Your task to perform on an android device: visit the assistant section in the google photos Image 0: 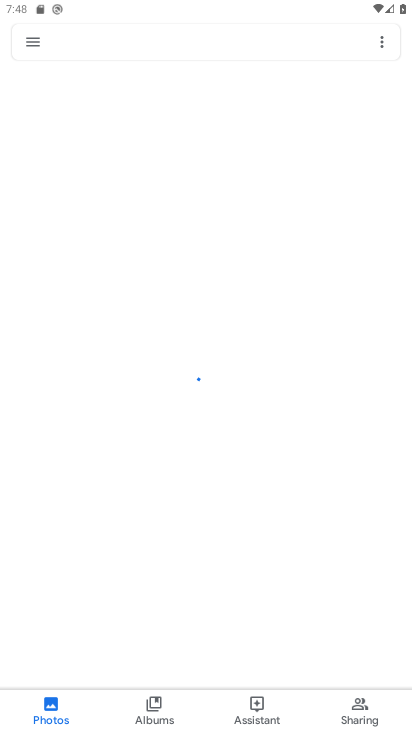
Step 0: press home button
Your task to perform on an android device: visit the assistant section in the google photos Image 1: 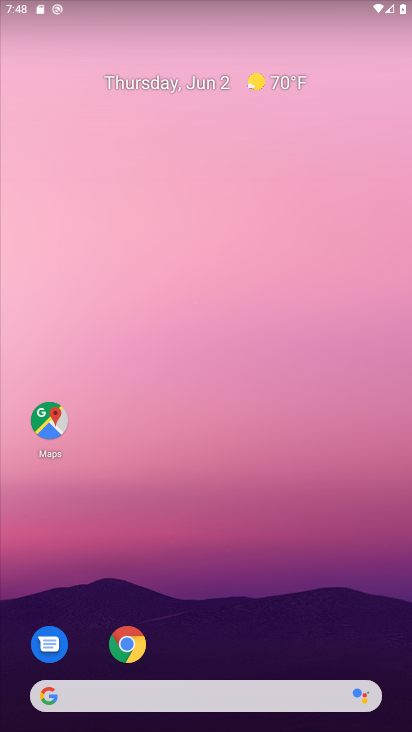
Step 1: drag from (177, 677) to (409, 163)
Your task to perform on an android device: visit the assistant section in the google photos Image 2: 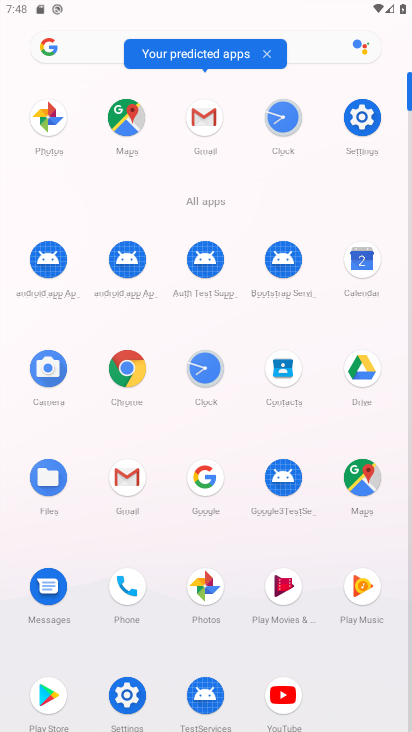
Step 2: click (48, 112)
Your task to perform on an android device: visit the assistant section in the google photos Image 3: 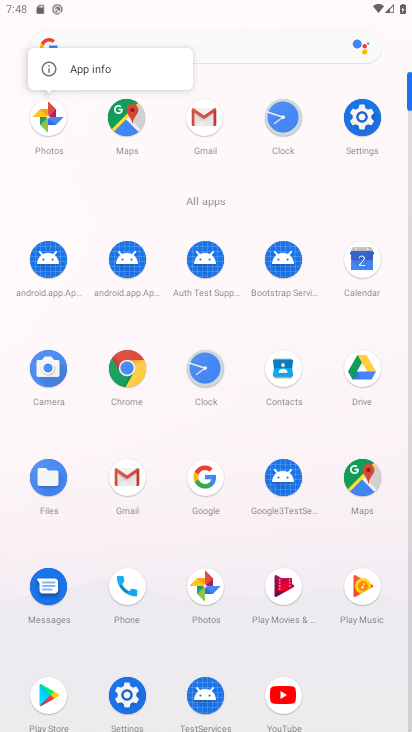
Step 3: click (48, 112)
Your task to perform on an android device: visit the assistant section in the google photos Image 4: 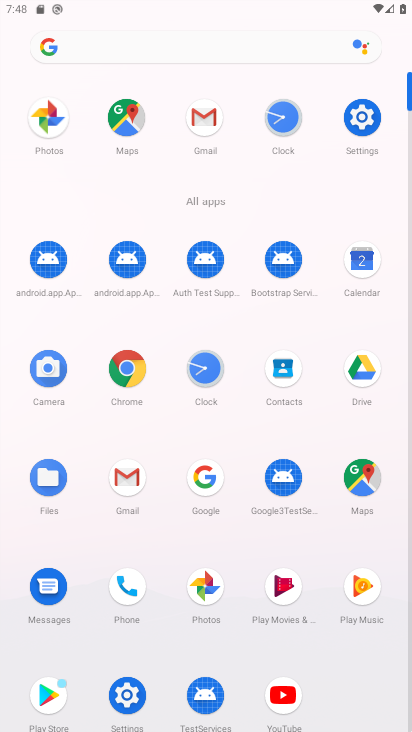
Step 4: click (48, 112)
Your task to perform on an android device: visit the assistant section in the google photos Image 5: 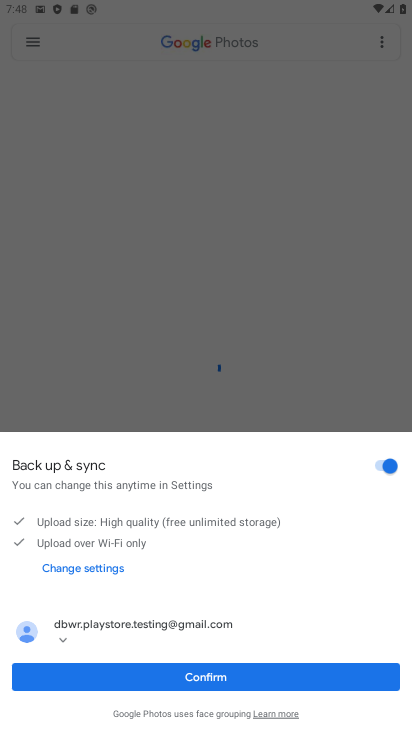
Step 5: click (188, 682)
Your task to perform on an android device: visit the assistant section in the google photos Image 6: 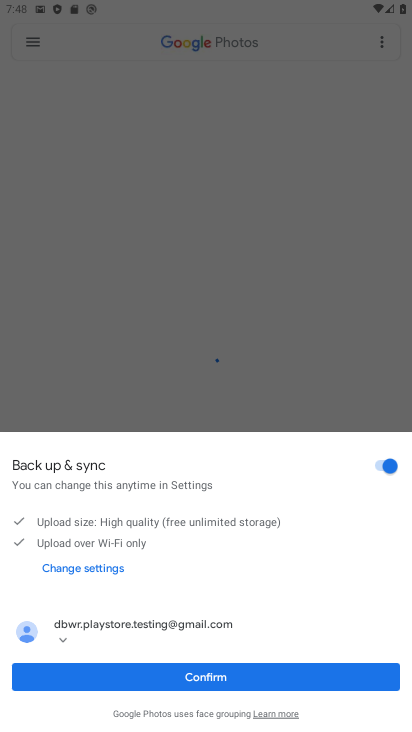
Step 6: click (188, 682)
Your task to perform on an android device: visit the assistant section in the google photos Image 7: 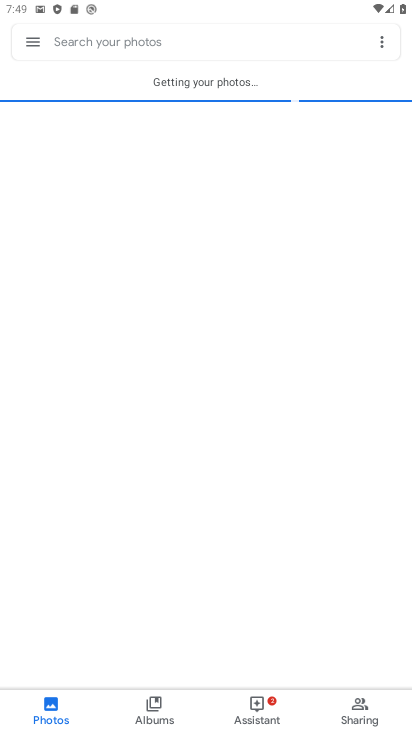
Step 7: click (254, 711)
Your task to perform on an android device: visit the assistant section in the google photos Image 8: 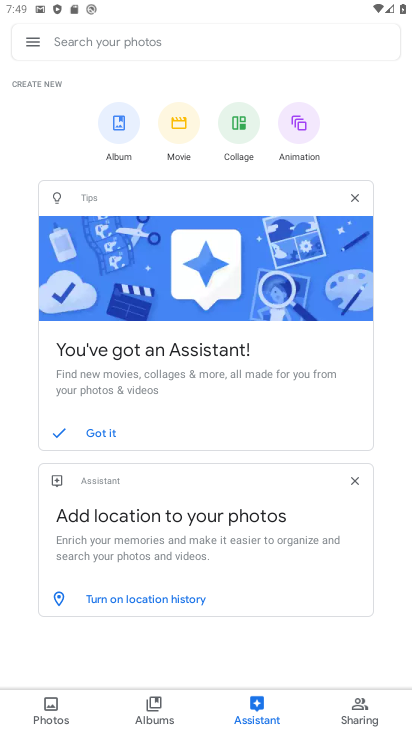
Step 8: task complete